Your task to perform on an android device: turn on sleep mode Image 0: 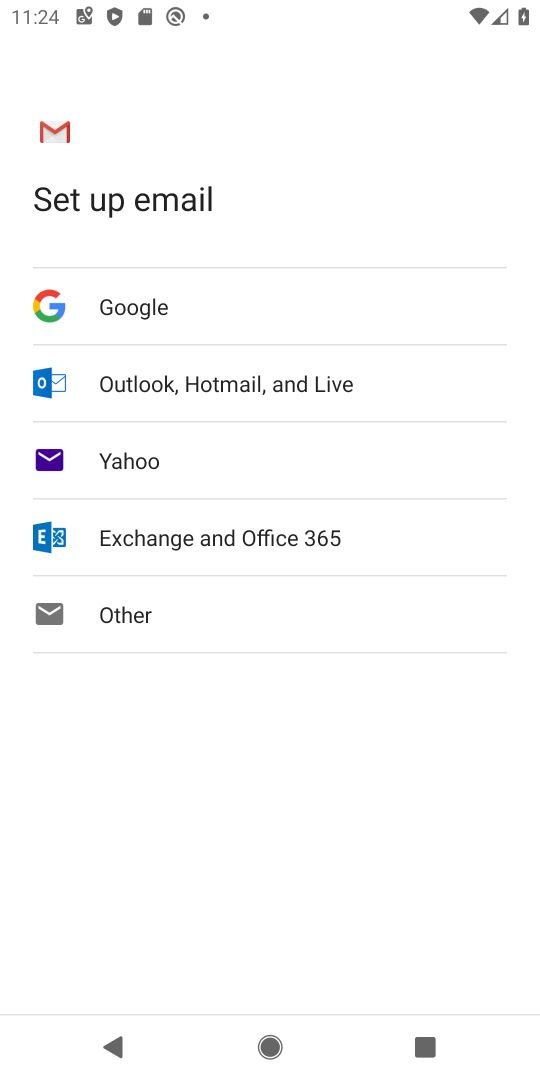
Step 0: press home button
Your task to perform on an android device: turn on sleep mode Image 1: 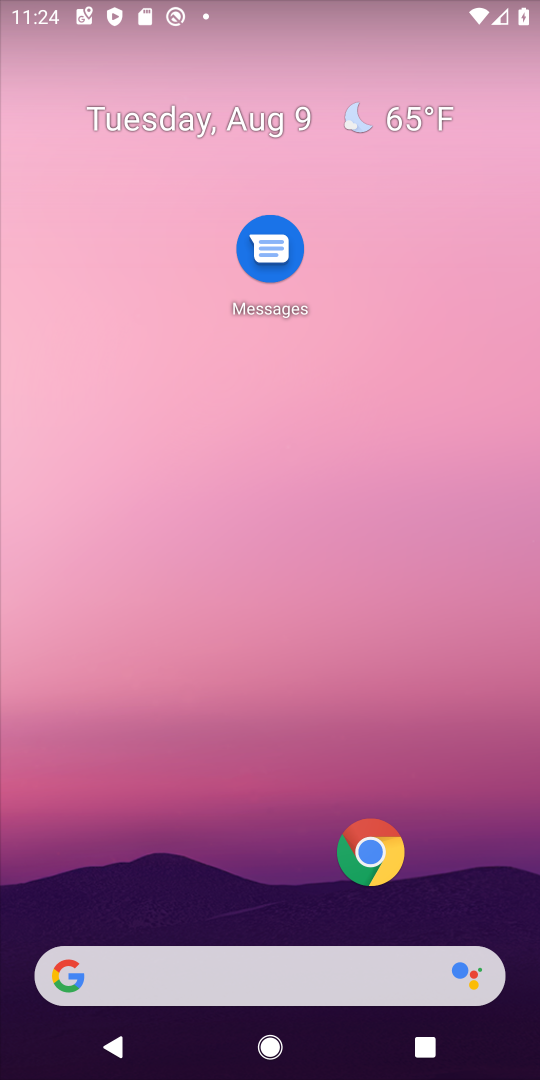
Step 1: drag from (237, 874) to (277, 168)
Your task to perform on an android device: turn on sleep mode Image 2: 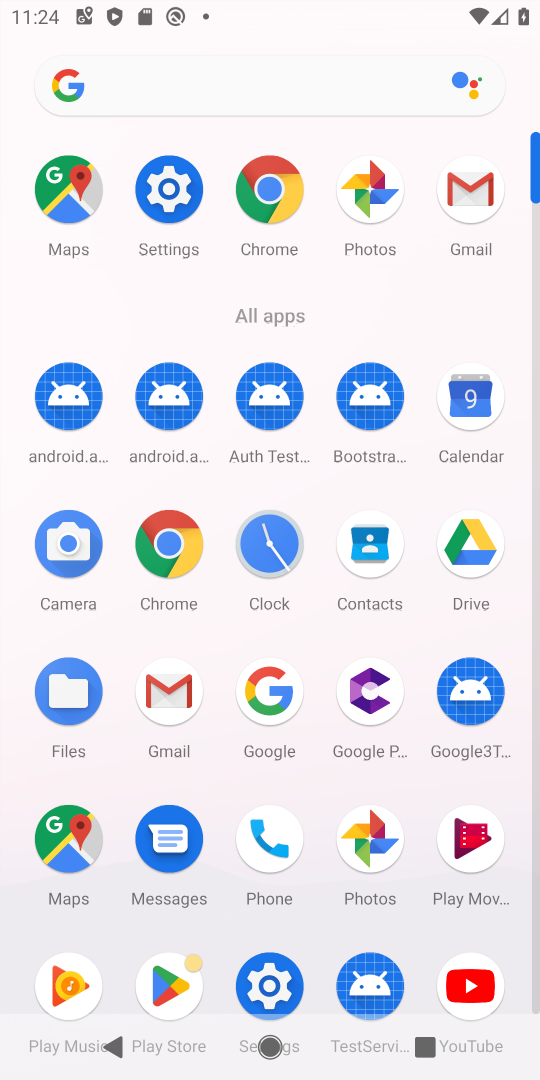
Step 2: click (186, 172)
Your task to perform on an android device: turn on sleep mode Image 3: 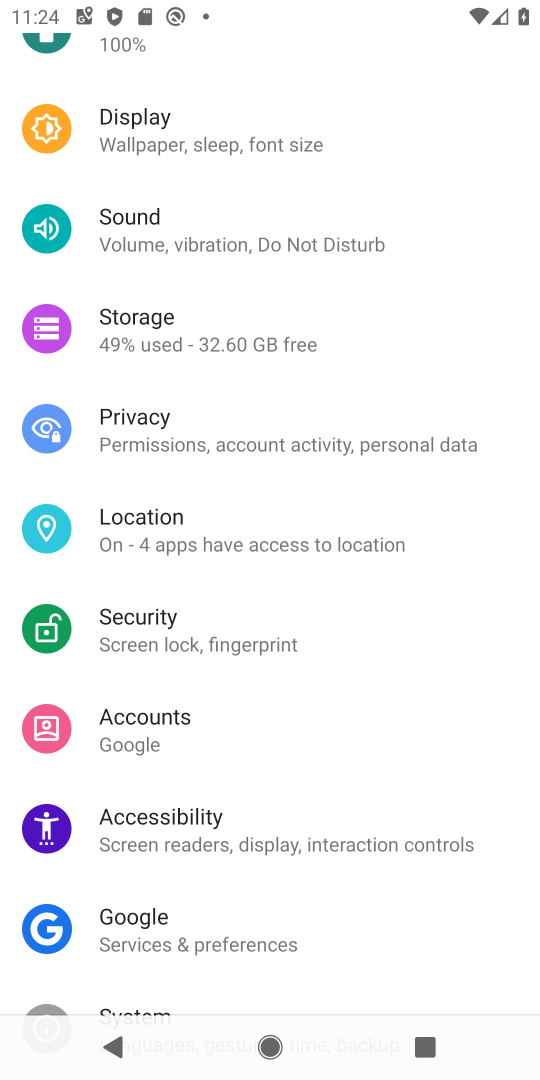
Step 3: task complete